Your task to perform on an android device: set an alarm Image 0: 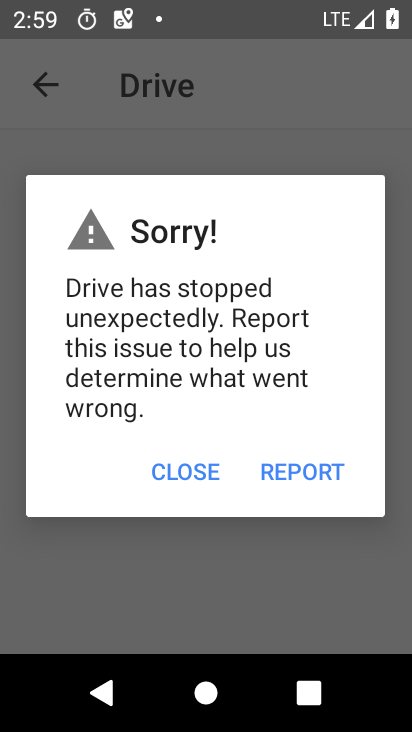
Step 0: press home button
Your task to perform on an android device: set an alarm Image 1: 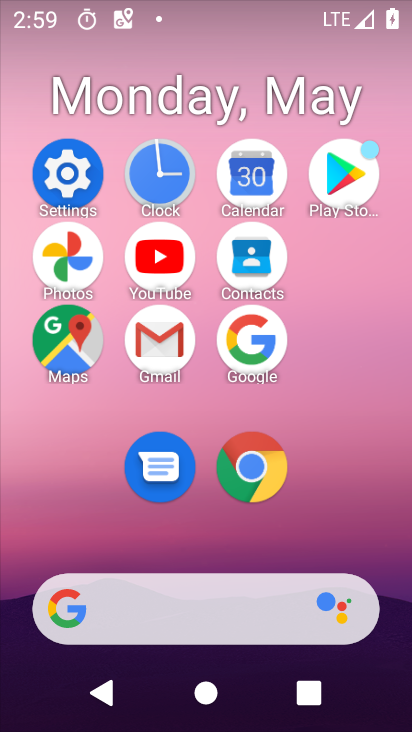
Step 1: click (172, 165)
Your task to perform on an android device: set an alarm Image 2: 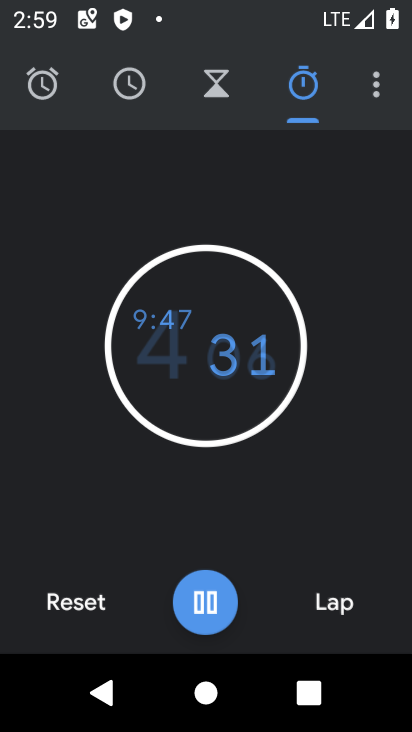
Step 2: click (57, 95)
Your task to perform on an android device: set an alarm Image 3: 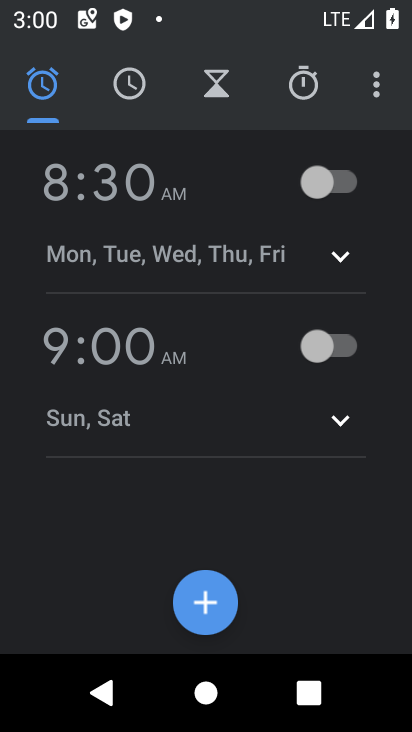
Step 3: click (357, 180)
Your task to perform on an android device: set an alarm Image 4: 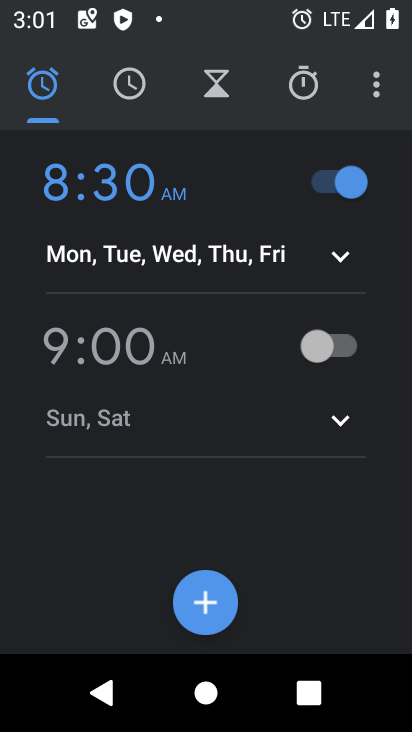
Step 4: task complete